Your task to perform on an android device: toggle location history Image 0: 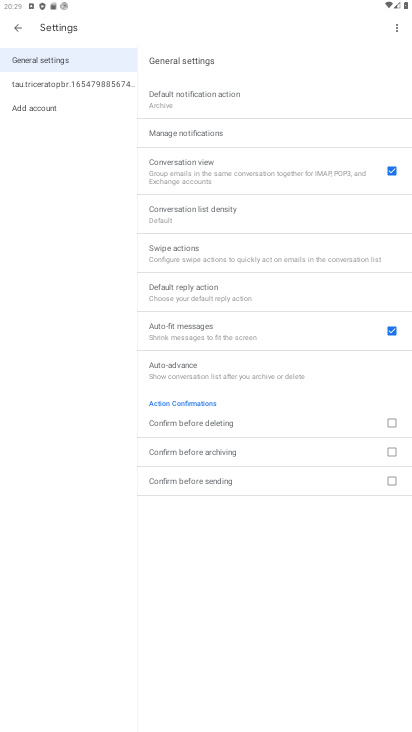
Step 0: click (15, 27)
Your task to perform on an android device: toggle location history Image 1: 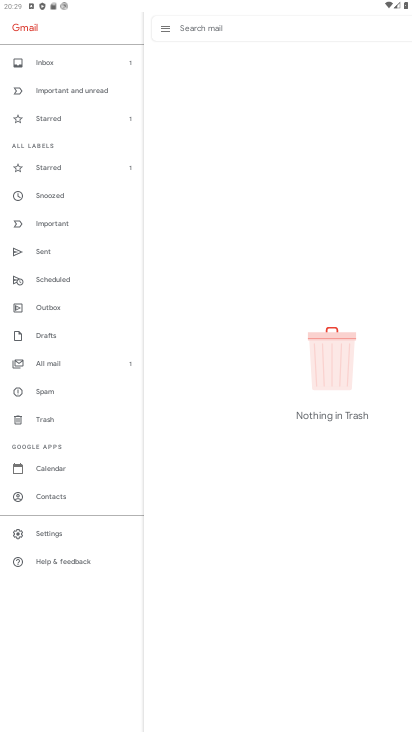
Step 1: press home button
Your task to perform on an android device: toggle location history Image 2: 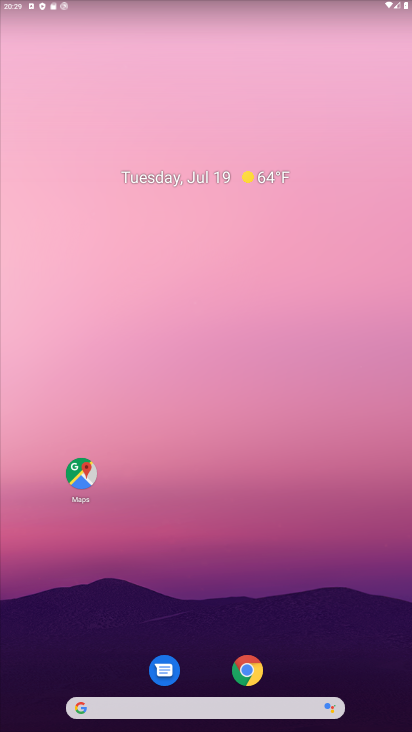
Step 2: click (81, 472)
Your task to perform on an android device: toggle location history Image 3: 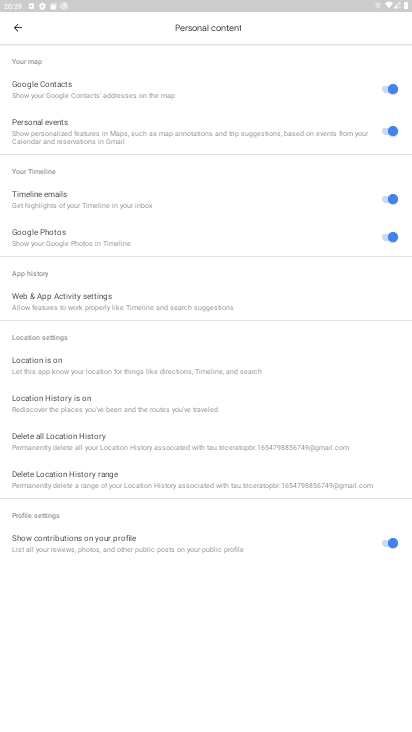
Step 3: click (22, 29)
Your task to perform on an android device: toggle location history Image 4: 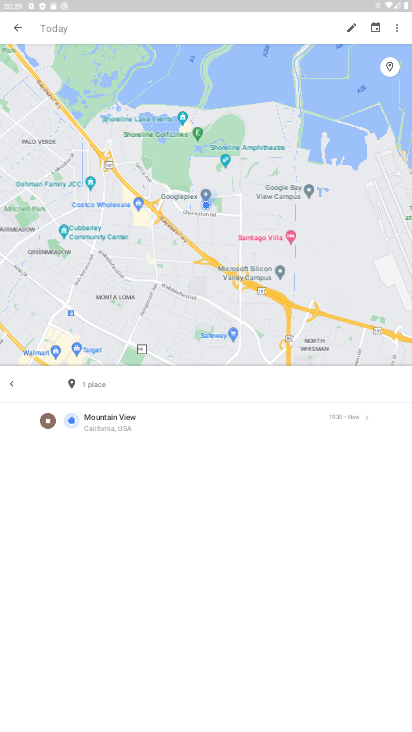
Step 4: click (393, 28)
Your task to perform on an android device: toggle location history Image 5: 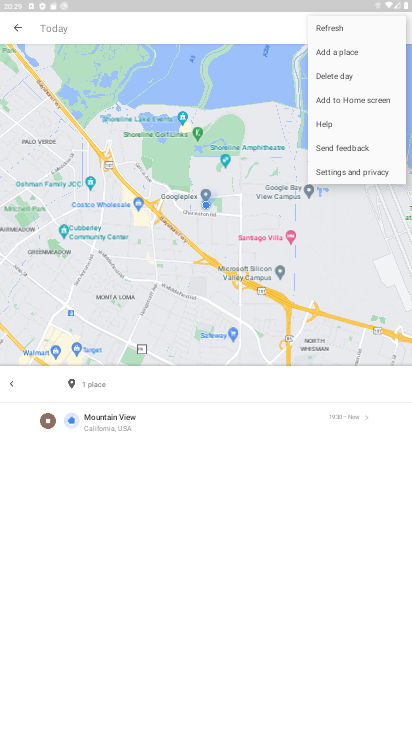
Step 5: click (372, 168)
Your task to perform on an android device: toggle location history Image 6: 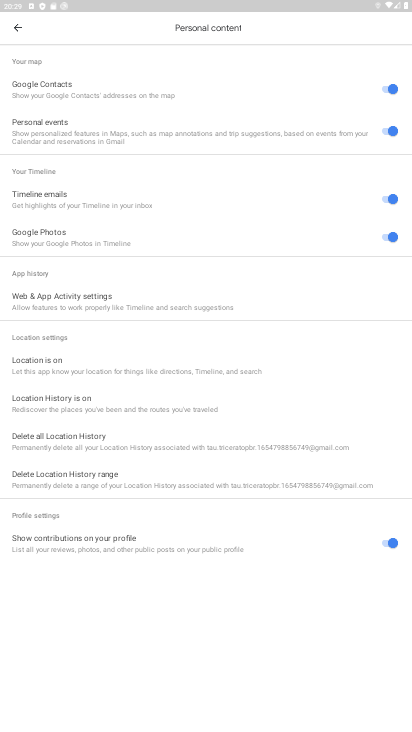
Step 6: click (86, 404)
Your task to perform on an android device: toggle location history Image 7: 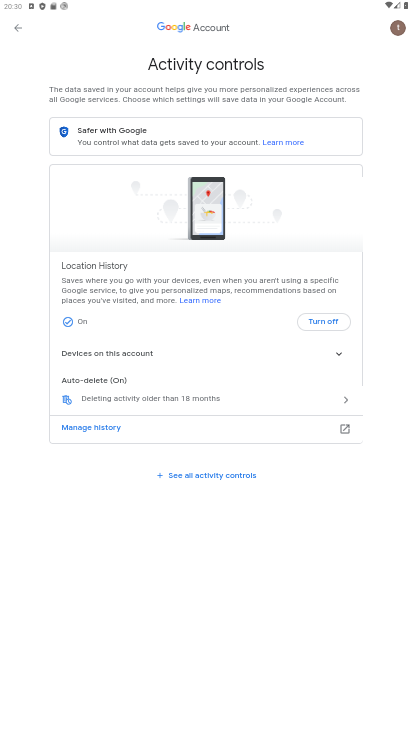
Step 7: task complete